Your task to perform on an android device: uninstall "Spotify: Music and Podcasts" Image 0: 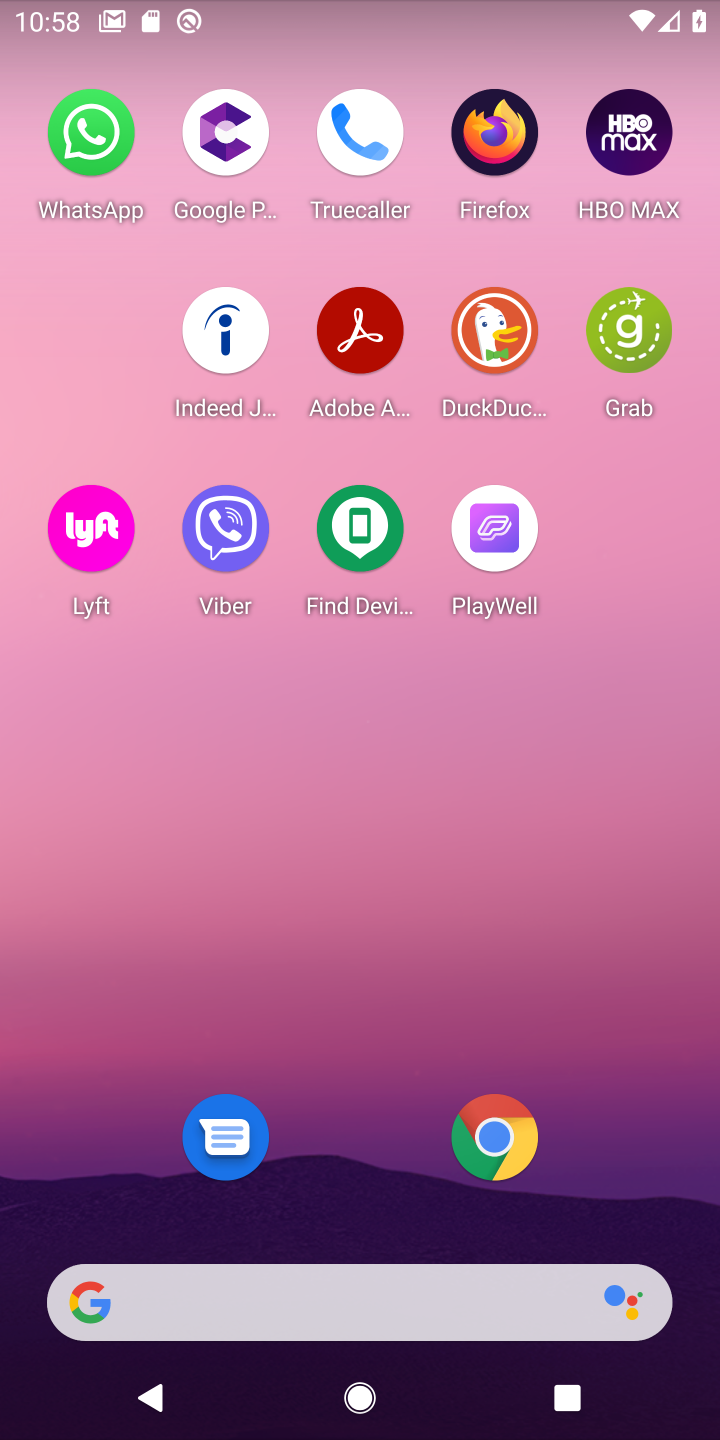
Step 0: drag from (346, 991) to (326, 20)
Your task to perform on an android device: uninstall "Spotify: Music and Podcasts" Image 1: 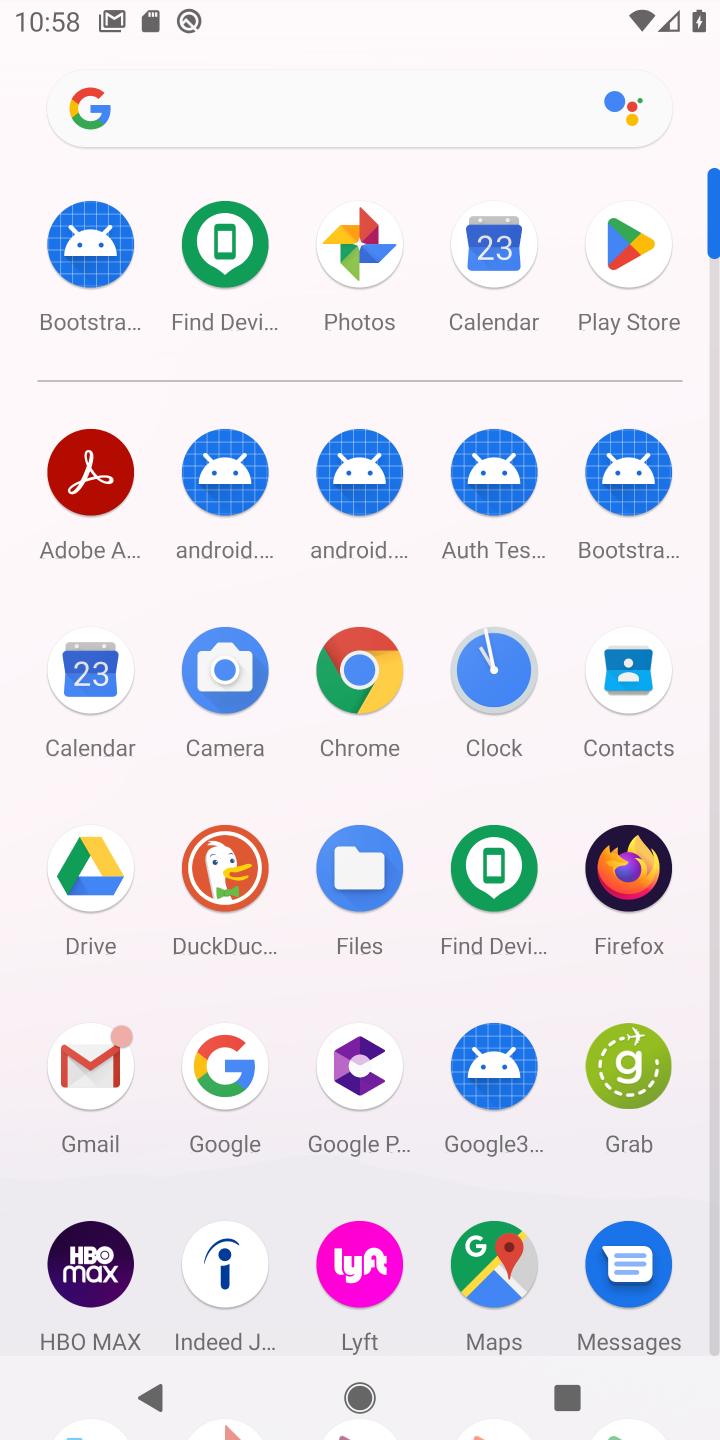
Step 1: click (650, 254)
Your task to perform on an android device: uninstall "Spotify: Music and Podcasts" Image 2: 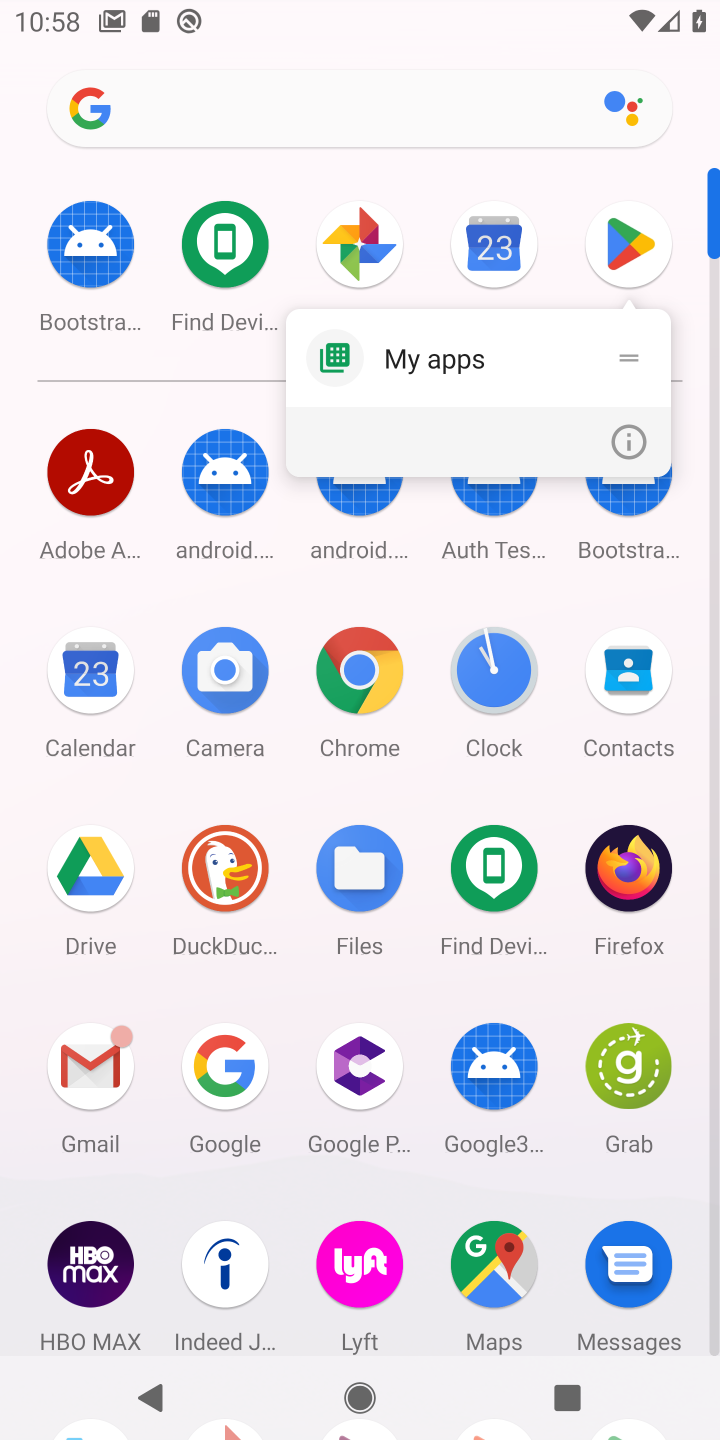
Step 2: click (609, 251)
Your task to perform on an android device: uninstall "Spotify: Music and Podcasts" Image 3: 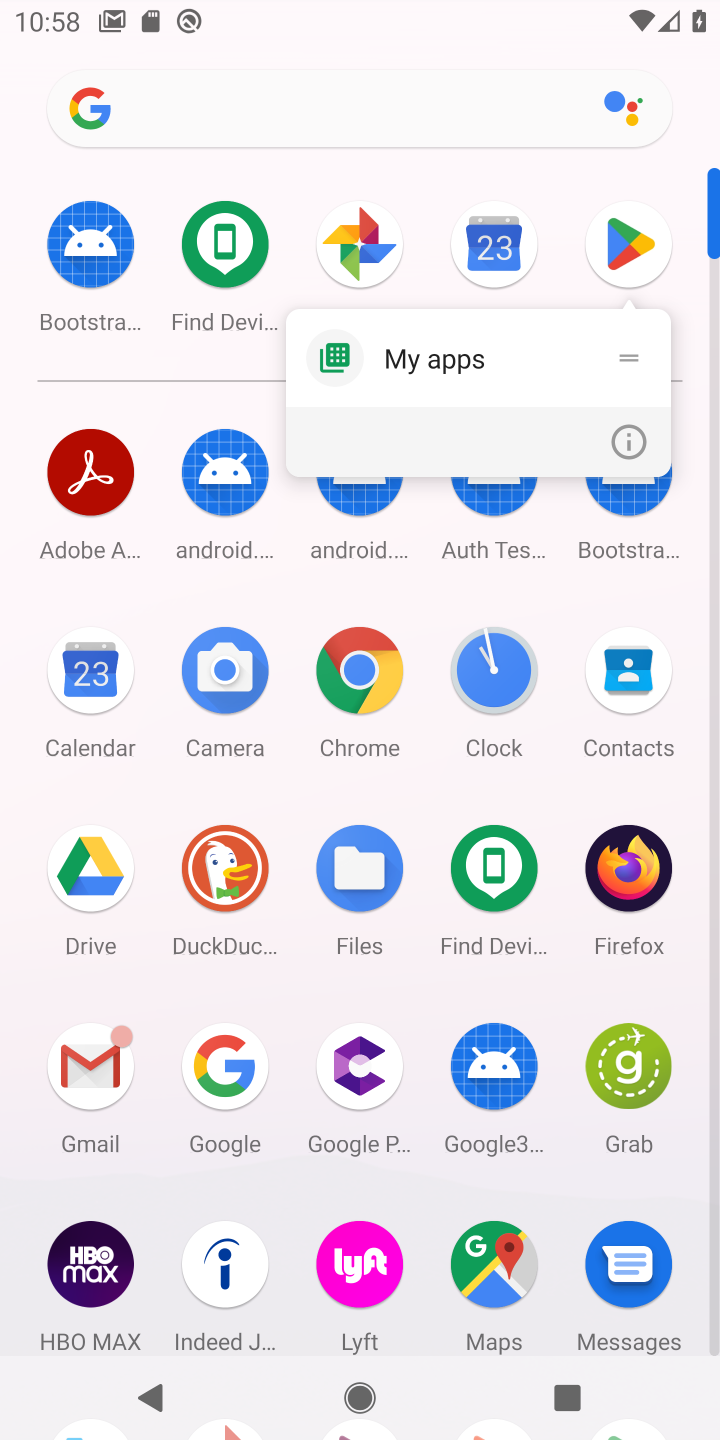
Step 3: click (609, 251)
Your task to perform on an android device: uninstall "Spotify: Music and Podcasts" Image 4: 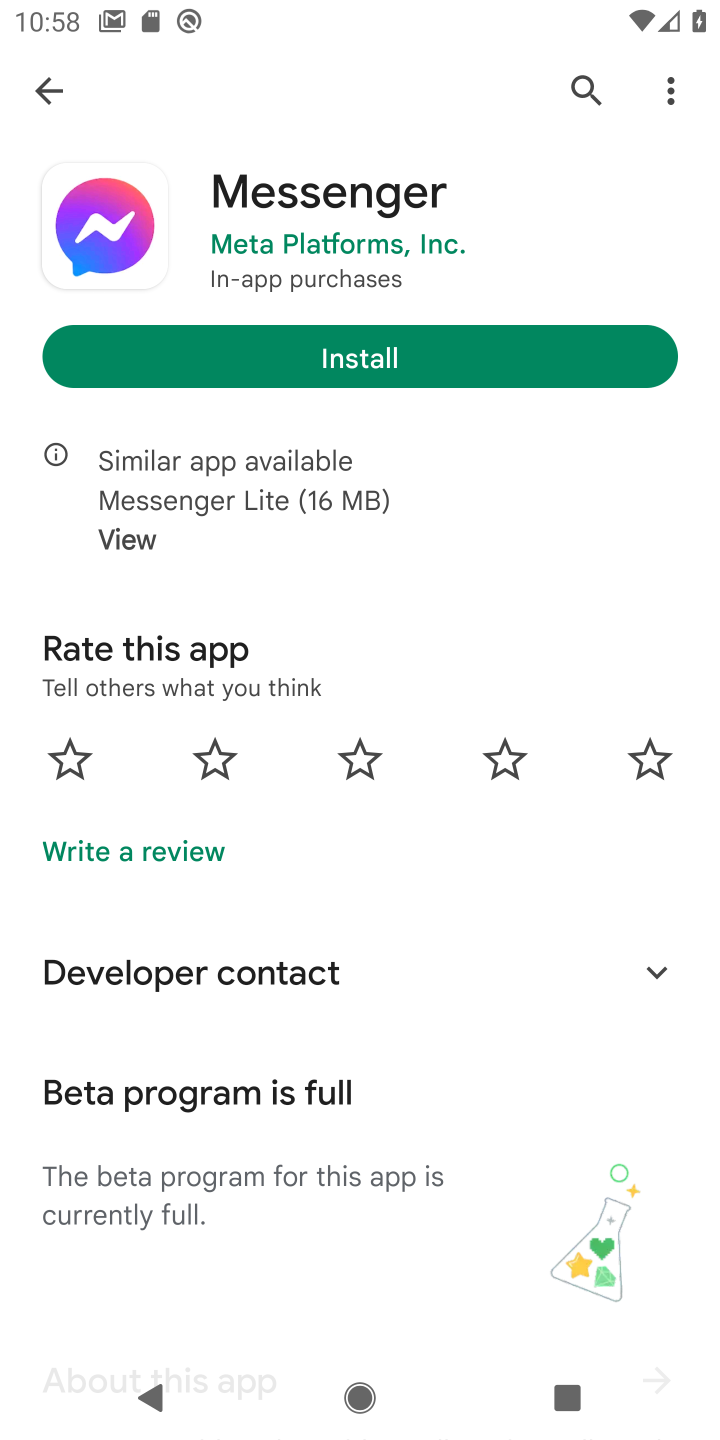
Step 4: click (52, 97)
Your task to perform on an android device: uninstall "Spotify: Music and Podcasts" Image 5: 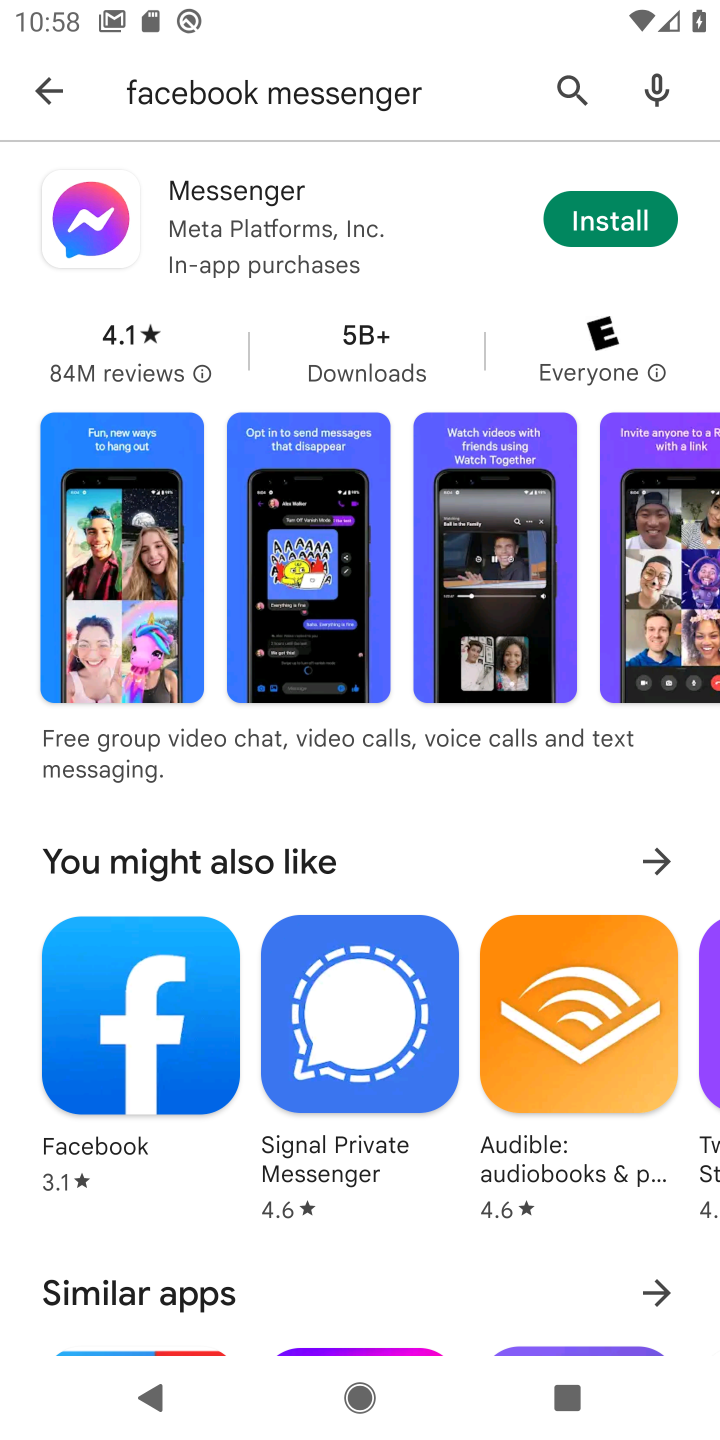
Step 5: click (286, 97)
Your task to perform on an android device: uninstall "Spotify: Music and Podcasts" Image 6: 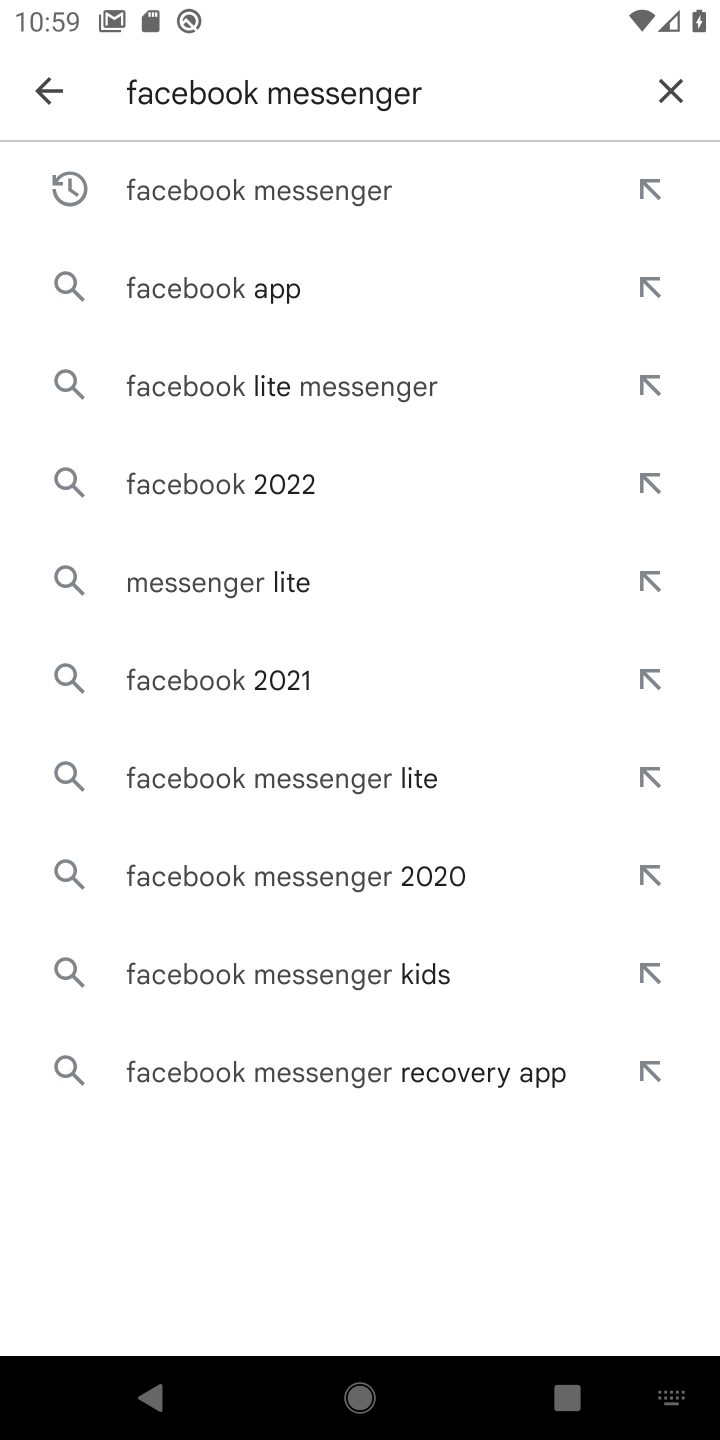
Step 6: click (683, 91)
Your task to perform on an android device: uninstall "Spotify: Music and Podcasts" Image 7: 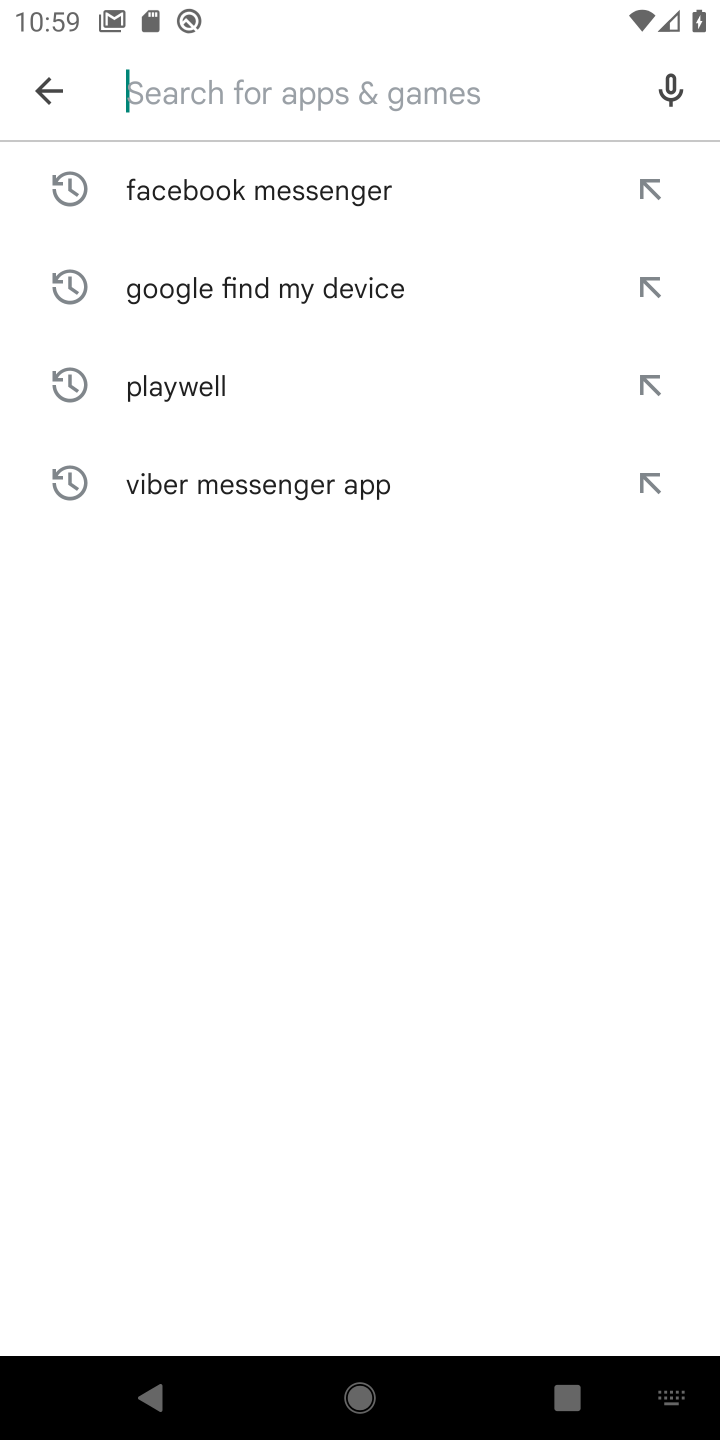
Step 7: type "spotify"
Your task to perform on an android device: uninstall "Spotify: Music and Podcasts" Image 8: 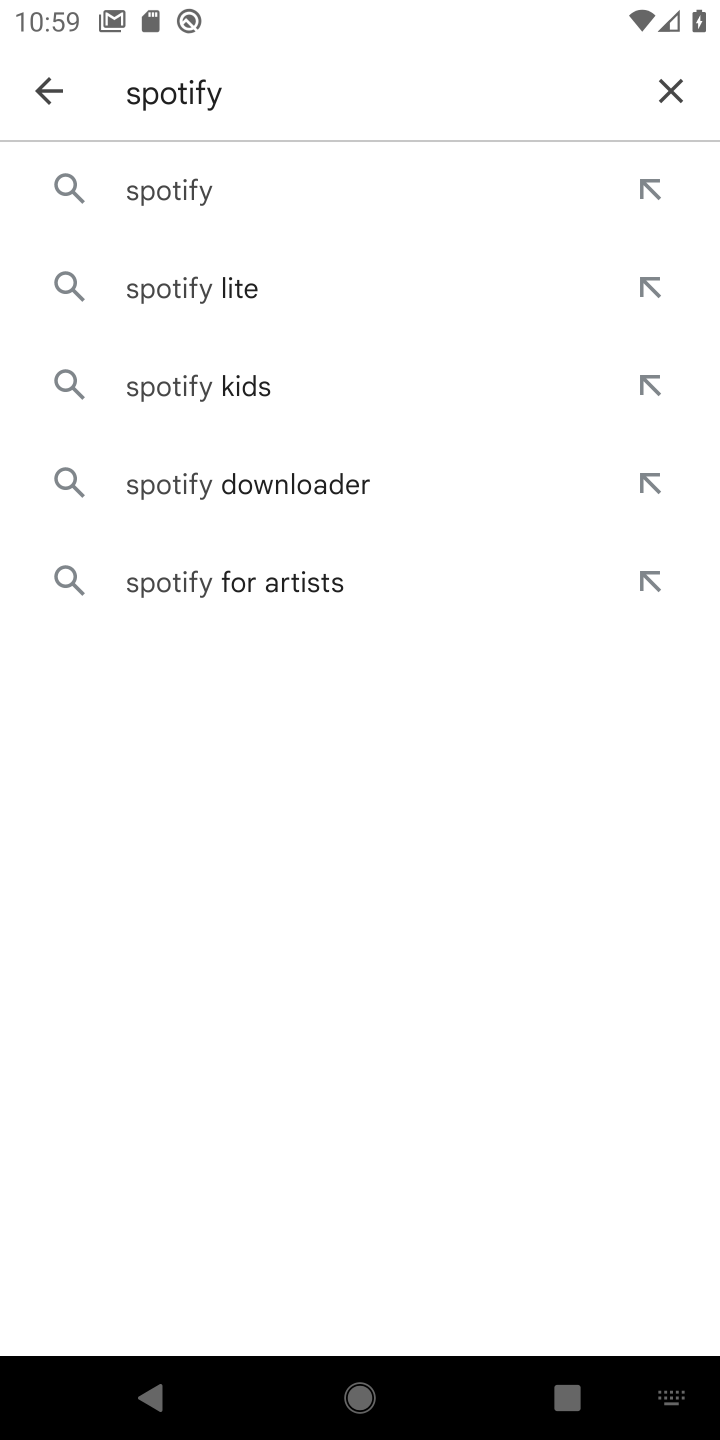
Step 8: click (213, 191)
Your task to perform on an android device: uninstall "Spotify: Music and Podcasts" Image 9: 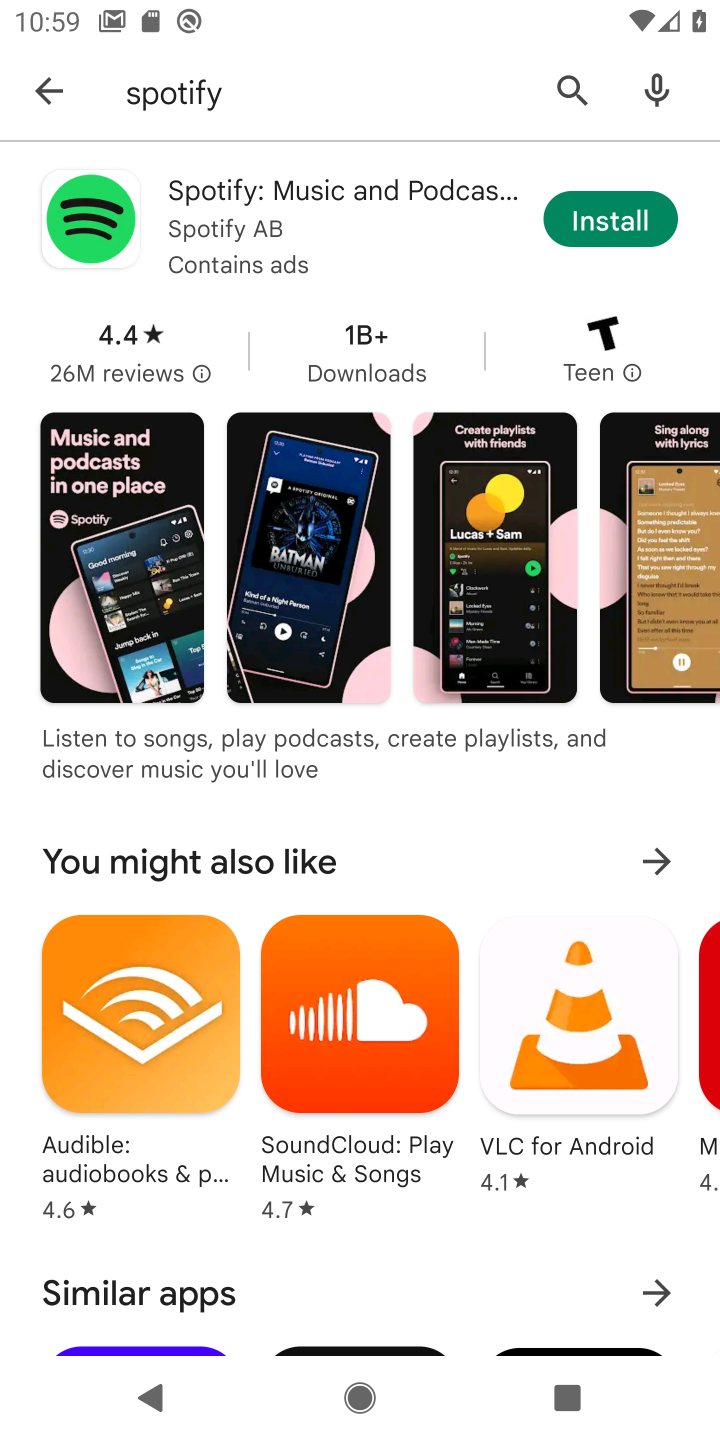
Step 9: click (149, 194)
Your task to perform on an android device: uninstall "Spotify: Music and Podcasts" Image 10: 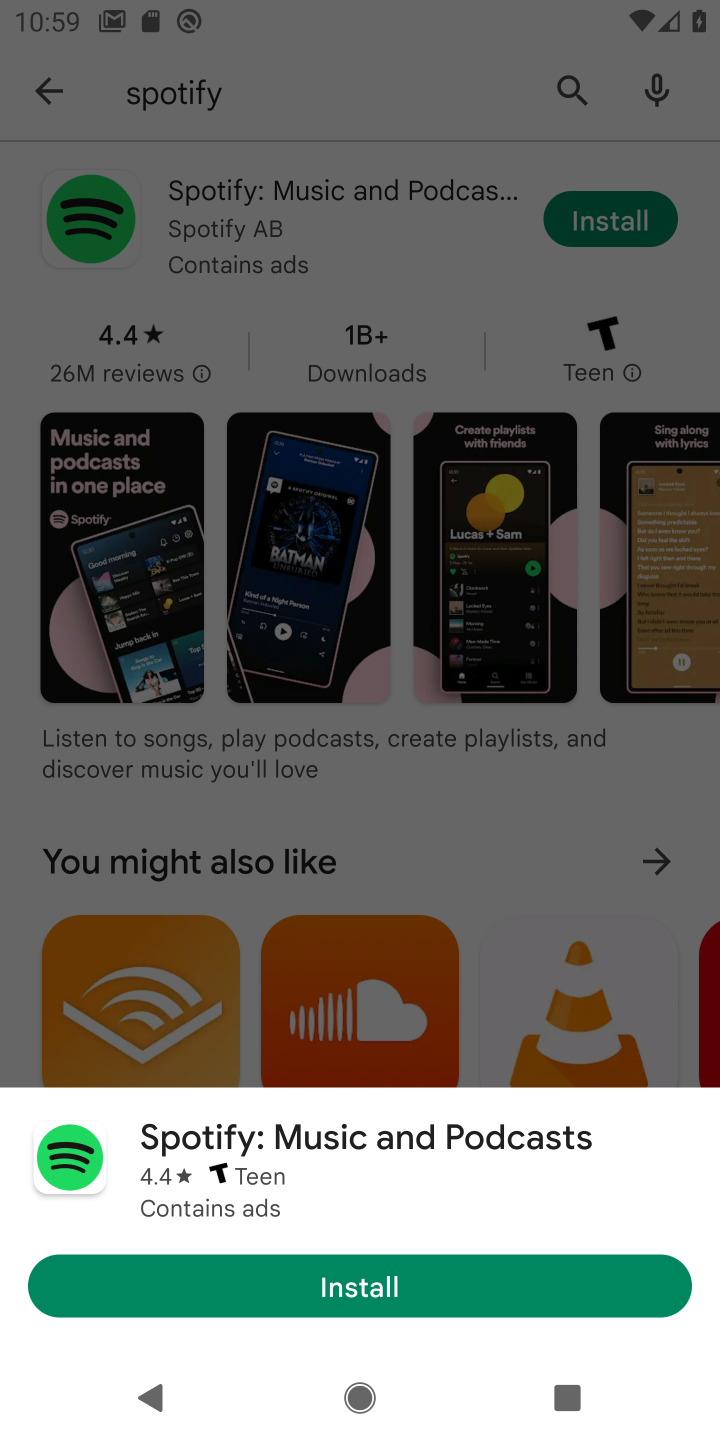
Step 10: task complete